Your task to perform on an android device: find snoozed emails in the gmail app Image 0: 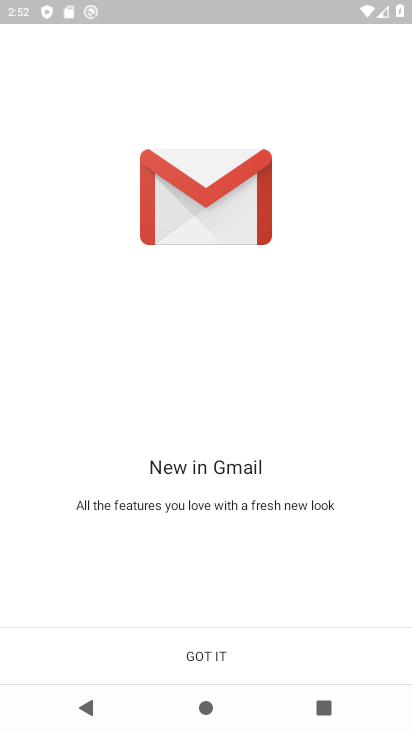
Step 0: press home button
Your task to perform on an android device: find snoozed emails in the gmail app Image 1: 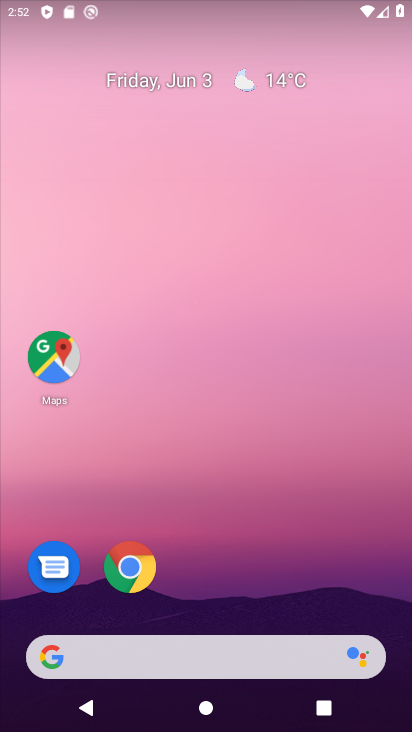
Step 1: drag from (217, 599) to (300, 11)
Your task to perform on an android device: find snoozed emails in the gmail app Image 2: 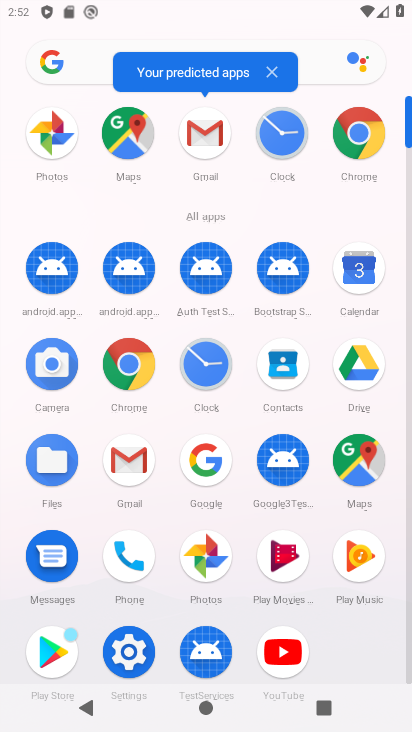
Step 2: click (137, 471)
Your task to perform on an android device: find snoozed emails in the gmail app Image 3: 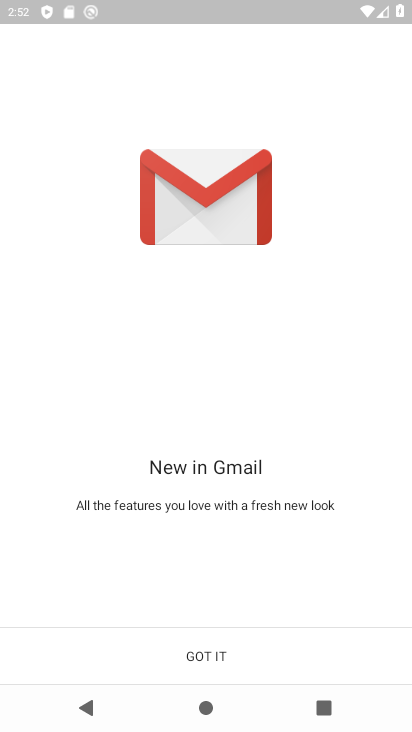
Step 3: click (244, 652)
Your task to perform on an android device: find snoozed emails in the gmail app Image 4: 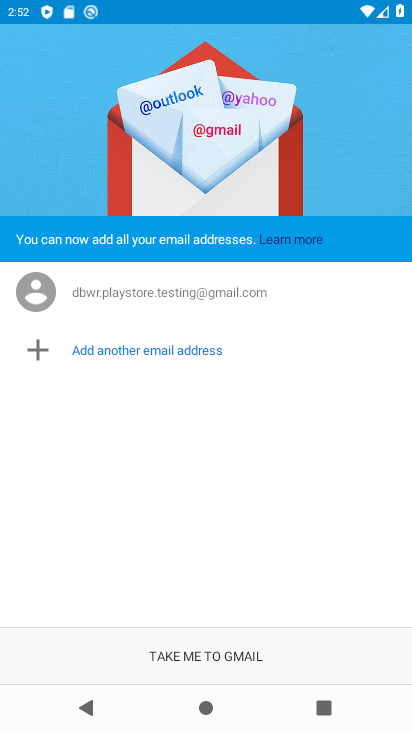
Step 4: click (244, 652)
Your task to perform on an android device: find snoozed emails in the gmail app Image 5: 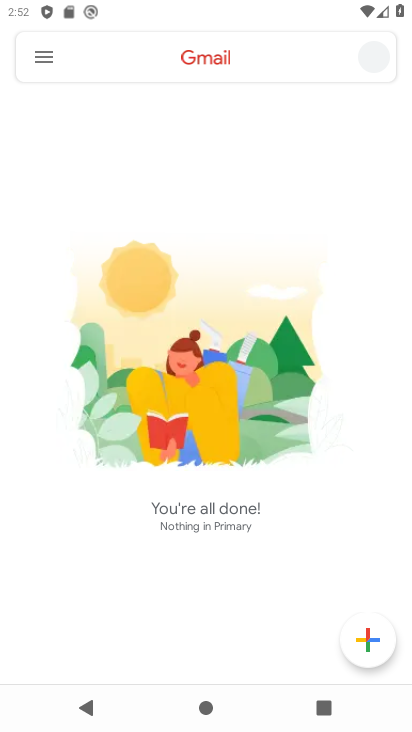
Step 5: click (51, 66)
Your task to perform on an android device: find snoozed emails in the gmail app Image 6: 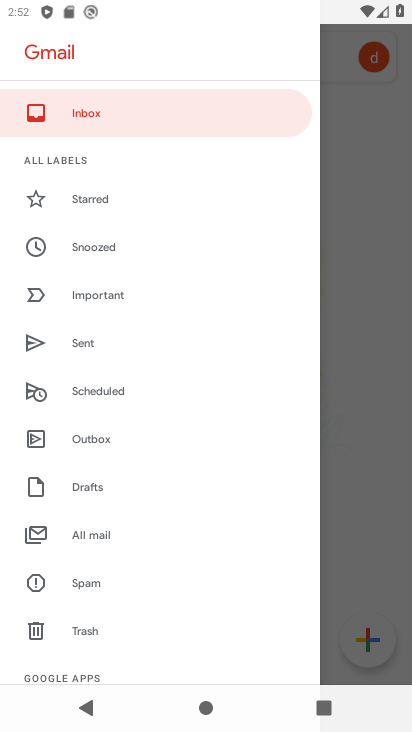
Step 6: click (102, 252)
Your task to perform on an android device: find snoozed emails in the gmail app Image 7: 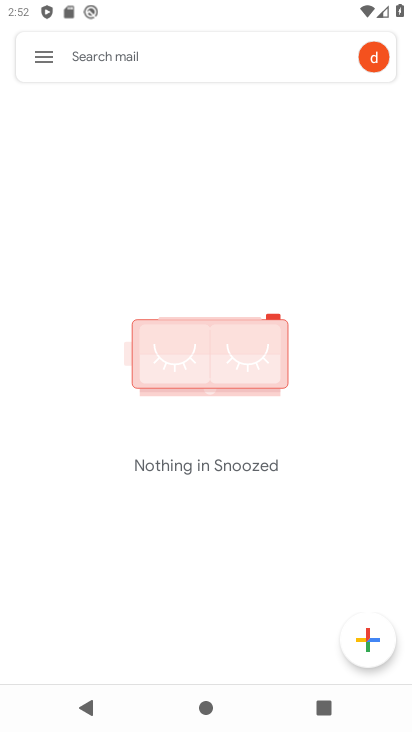
Step 7: task complete